Your task to perform on an android device: Open Google Maps and go to "Timeline" Image 0: 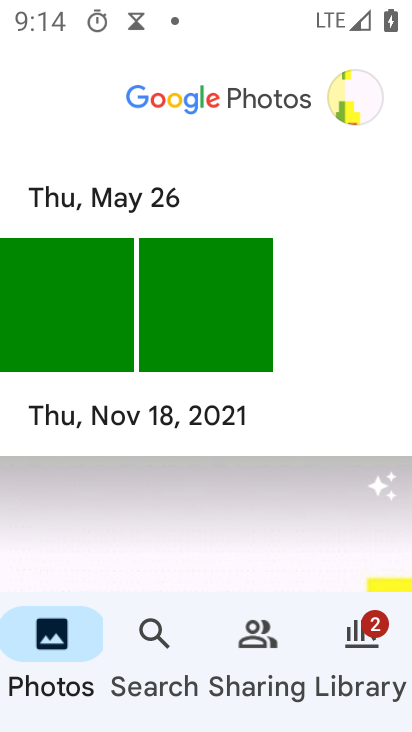
Step 0: press home button
Your task to perform on an android device: Open Google Maps and go to "Timeline" Image 1: 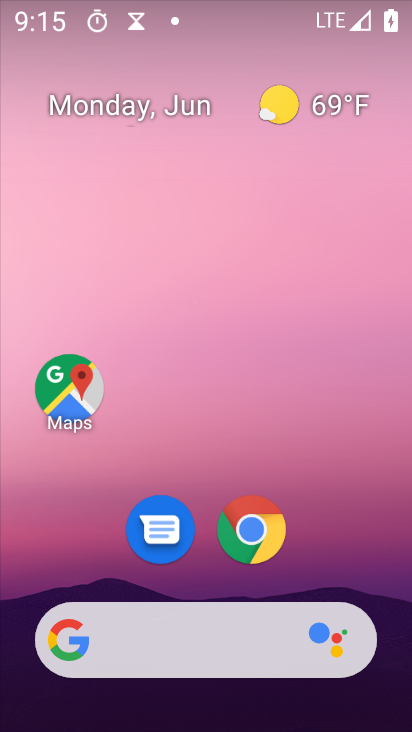
Step 1: click (71, 389)
Your task to perform on an android device: Open Google Maps and go to "Timeline" Image 2: 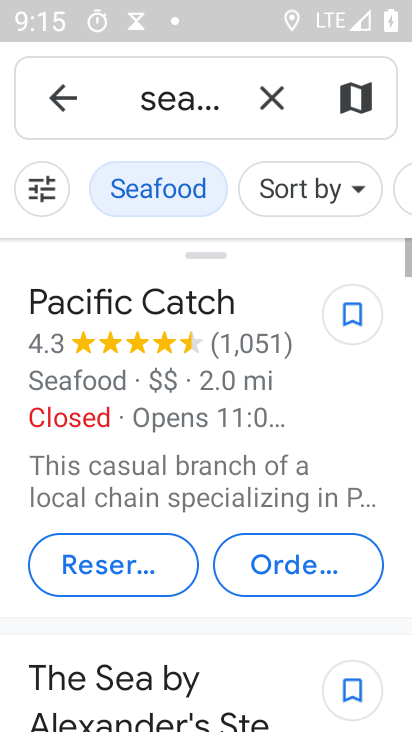
Step 2: click (263, 95)
Your task to perform on an android device: Open Google Maps and go to "Timeline" Image 3: 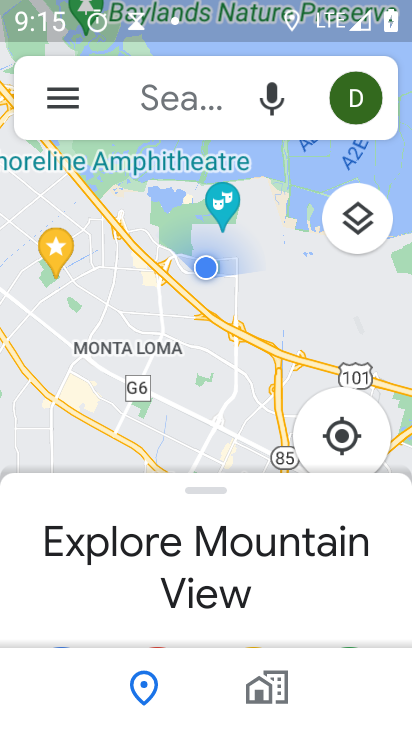
Step 3: click (56, 89)
Your task to perform on an android device: Open Google Maps and go to "Timeline" Image 4: 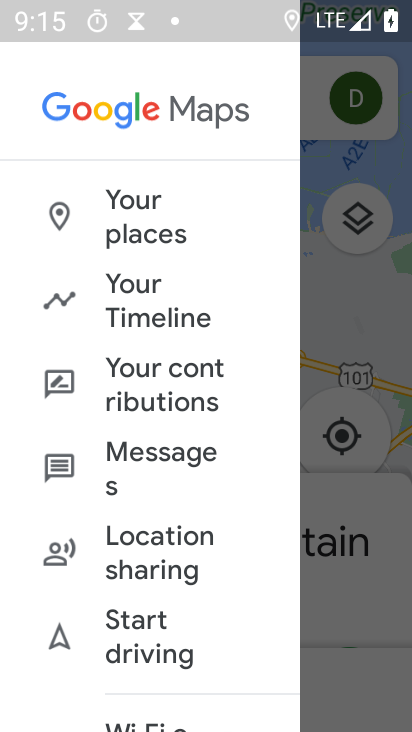
Step 4: click (133, 312)
Your task to perform on an android device: Open Google Maps and go to "Timeline" Image 5: 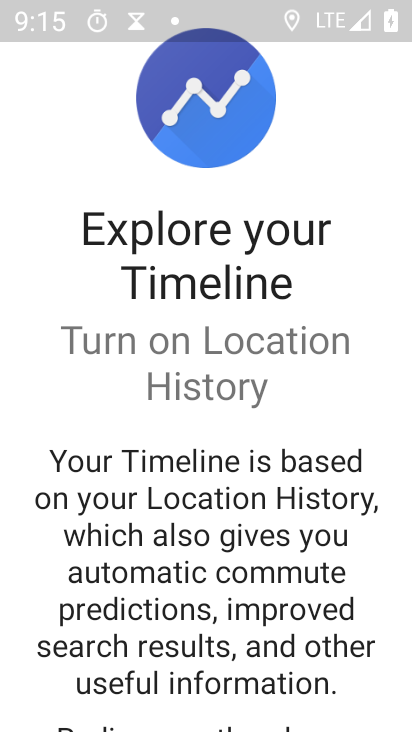
Step 5: task complete